Your task to perform on an android device: Go to Android settings Image 0: 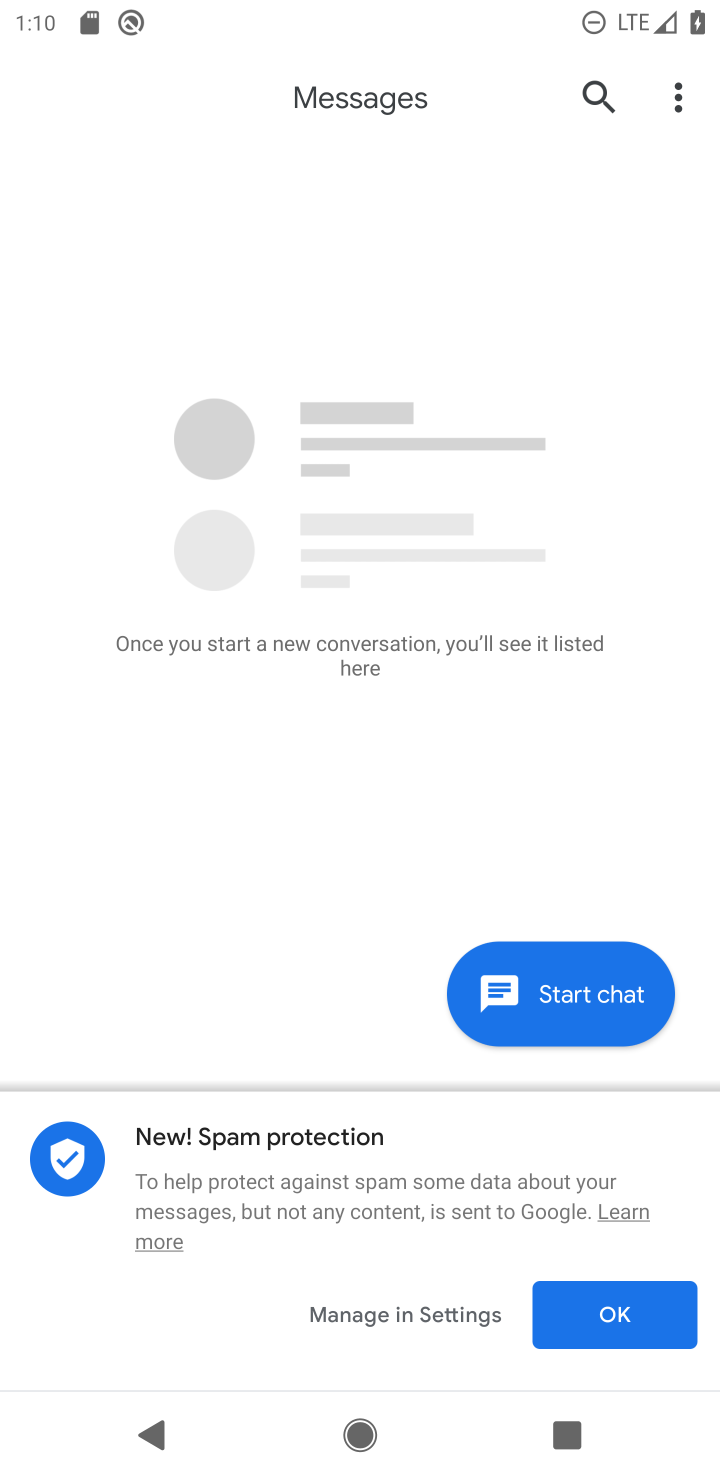
Step 0: press home button
Your task to perform on an android device: Go to Android settings Image 1: 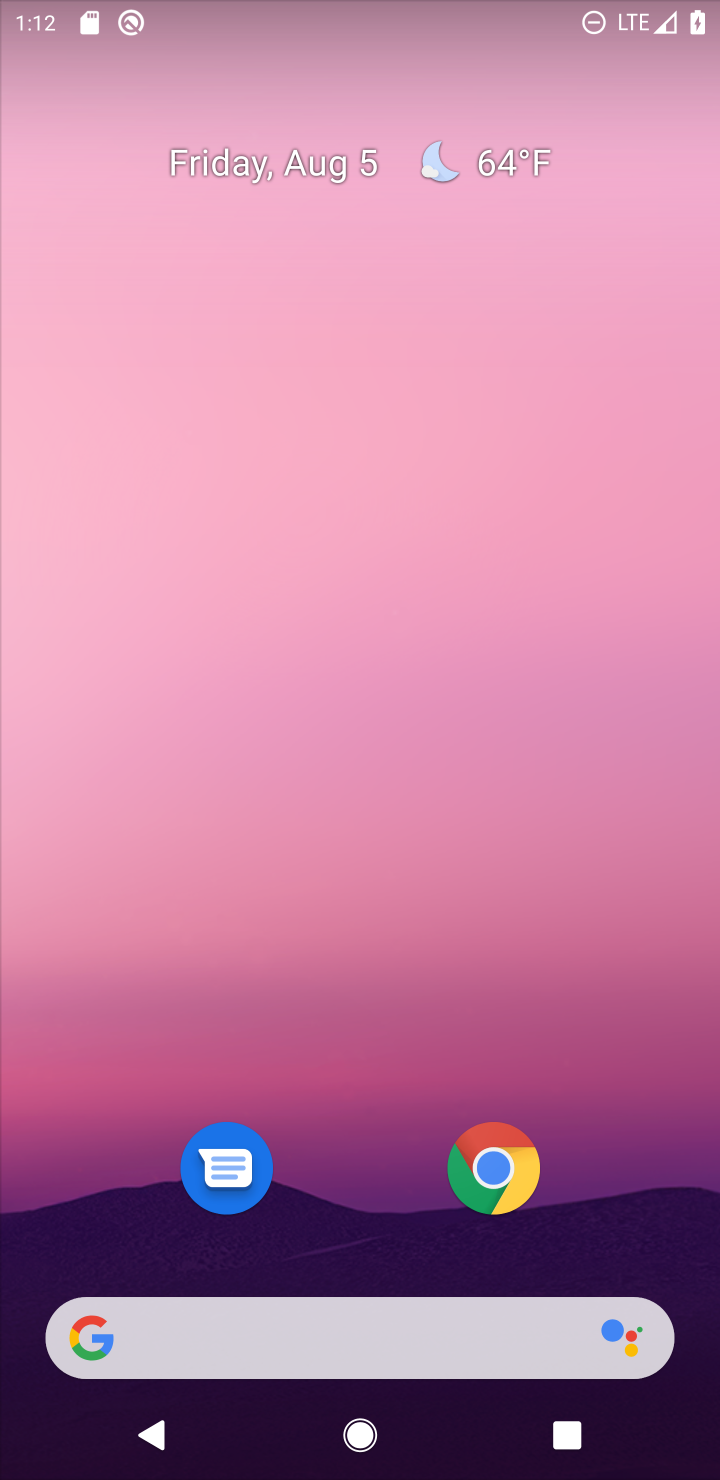
Step 1: task complete